Your task to perform on an android device: turn off notifications in google photos Image 0: 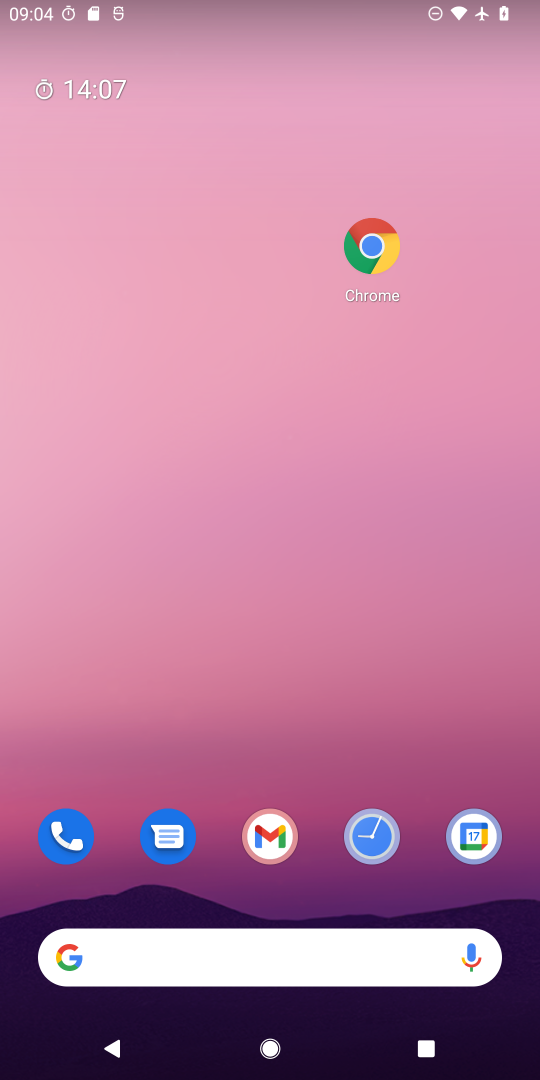
Step 0: drag from (194, 755) to (209, 198)
Your task to perform on an android device: turn off notifications in google photos Image 1: 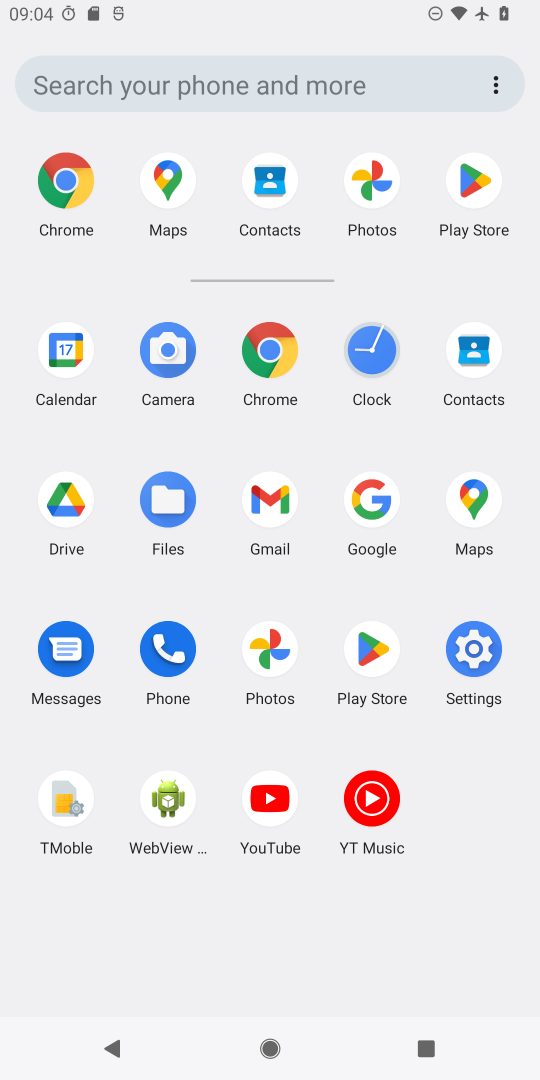
Step 1: click (367, 172)
Your task to perform on an android device: turn off notifications in google photos Image 2: 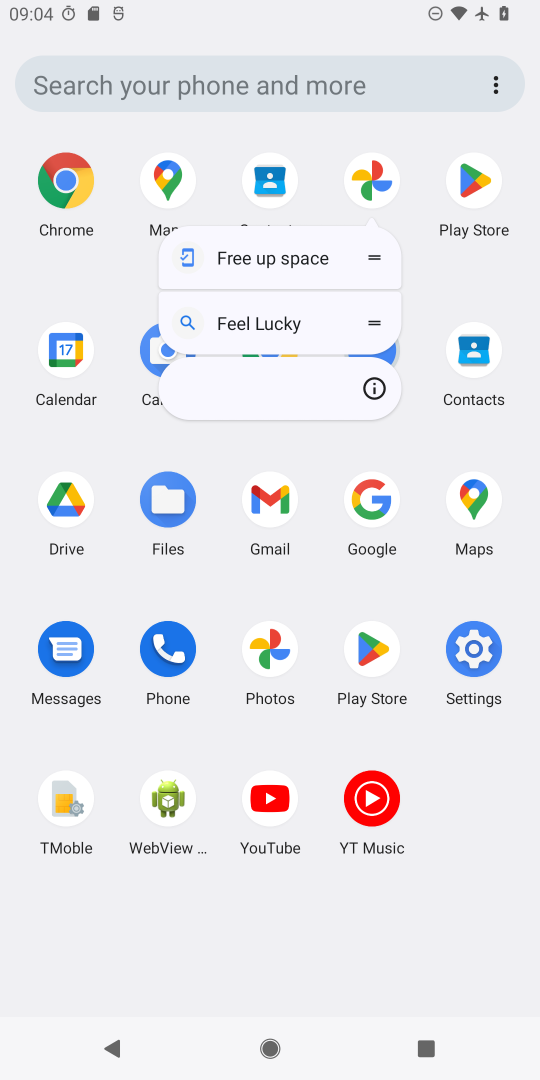
Step 2: click (367, 172)
Your task to perform on an android device: turn off notifications in google photos Image 3: 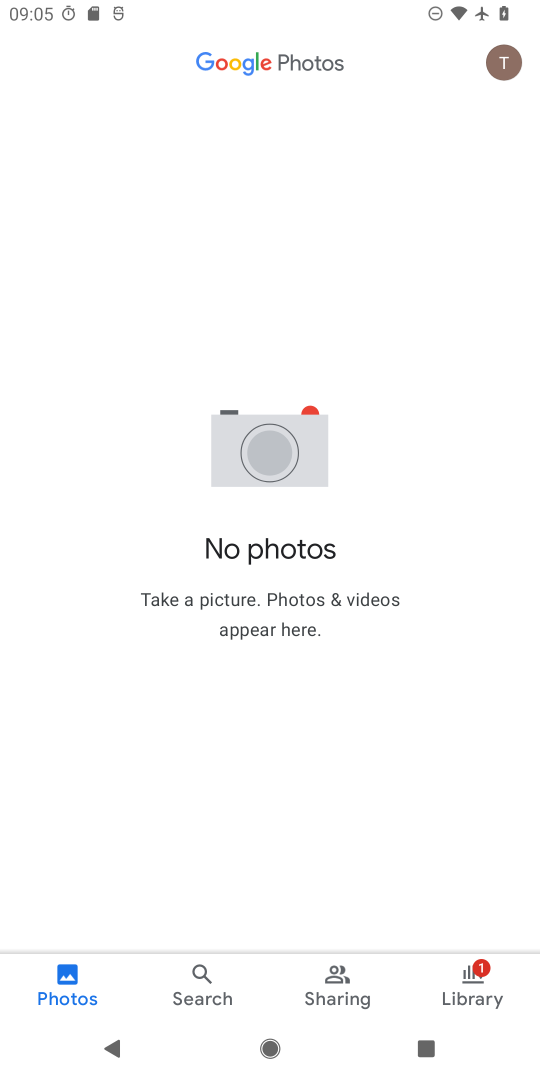
Step 3: click (515, 54)
Your task to perform on an android device: turn off notifications in google photos Image 4: 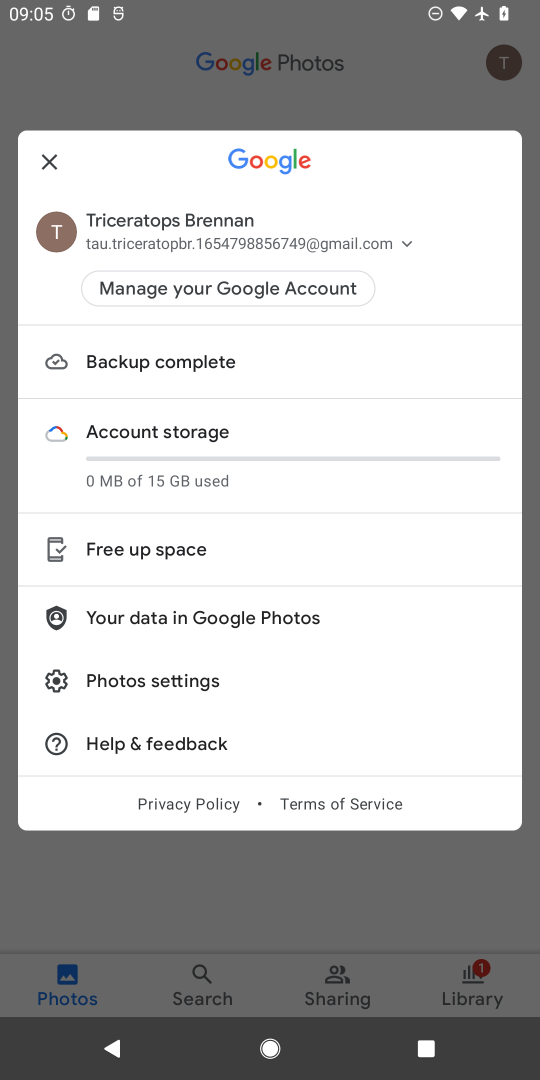
Step 4: click (172, 690)
Your task to perform on an android device: turn off notifications in google photos Image 5: 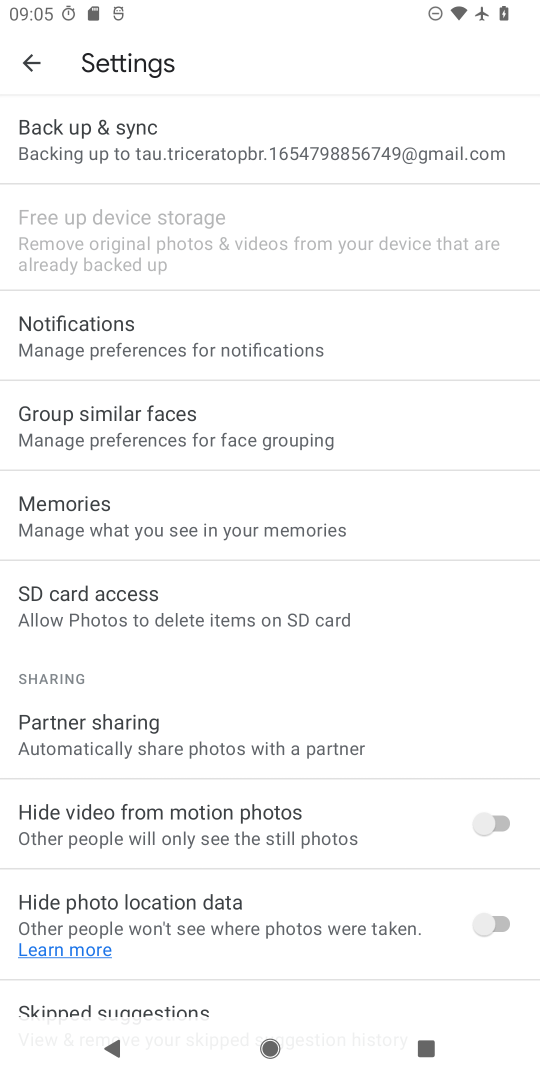
Step 5: drag from (111, 219) to (134, 413)
Your task to perform on an android device: turn off notifications in google photos Image 6: 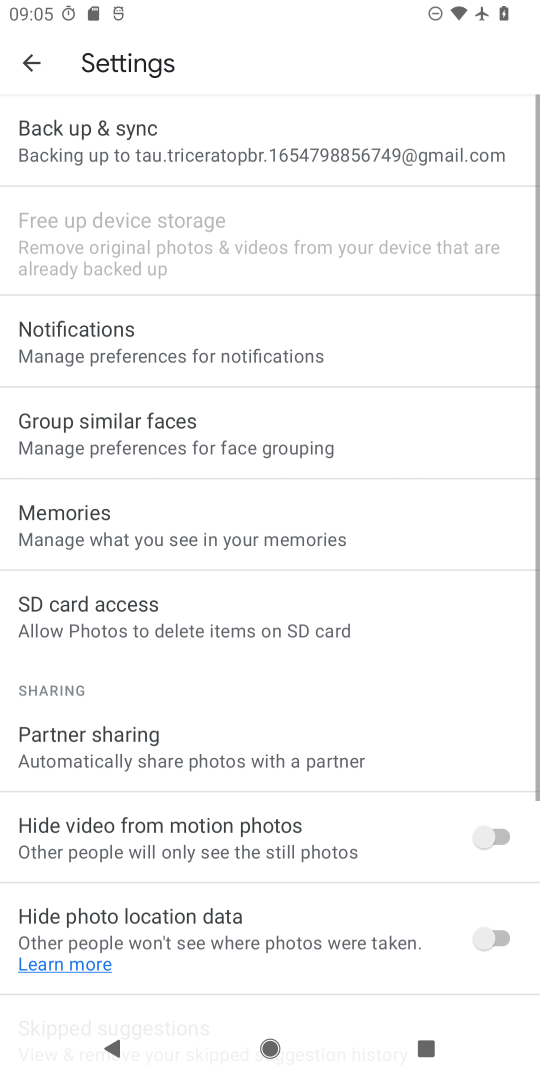
Step 6: click (128, 348)
Your task to perform on an android device: turn off notifications in google photos Image 7: 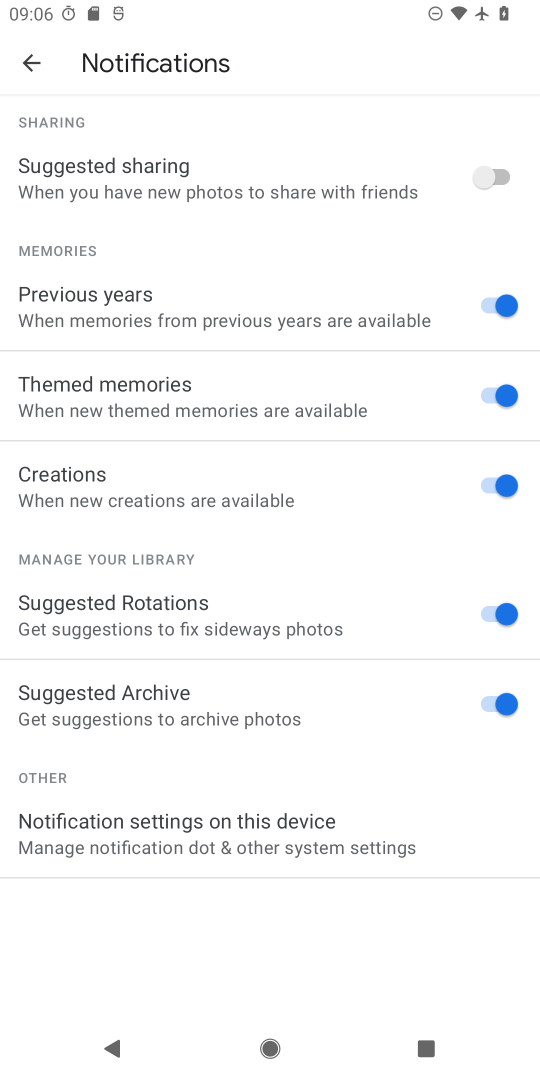
Step 7: drag from (362, 196) to (340, 882)
Your task to perform on an android device: turn off notifications in google photos Image 8: 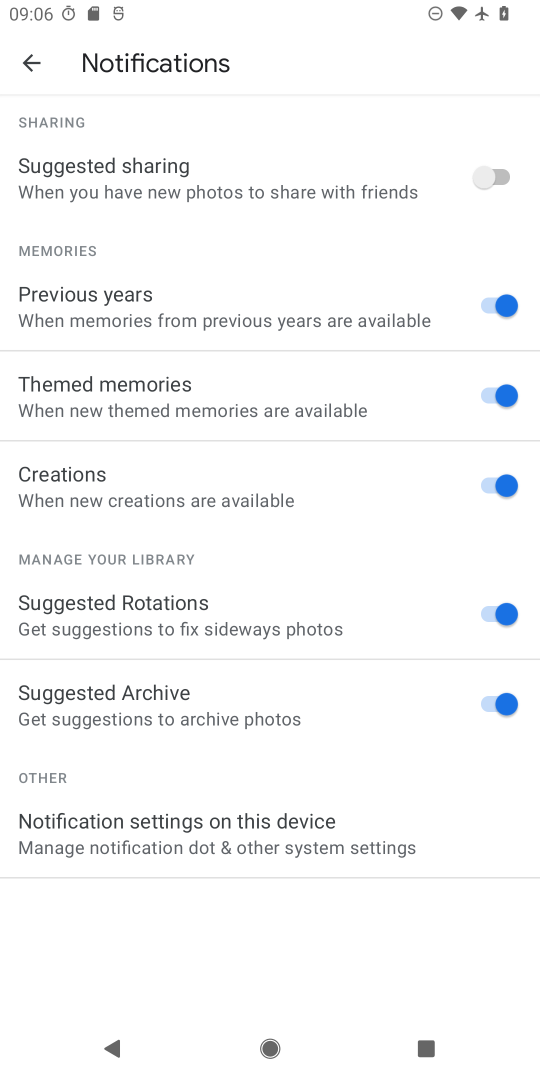
Step 8: click (32, 57)
Your task to perform on an android device: turn off notifications in google photos Image 9: 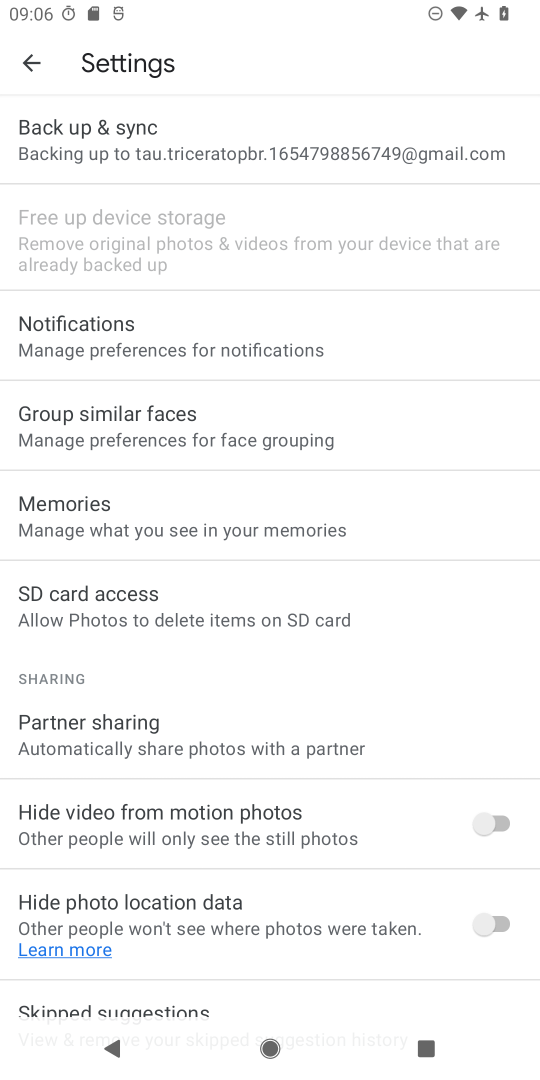
Step 9: click (249, 342)
Your task to perform on an android device: turn off notifications in google photos Image 10: 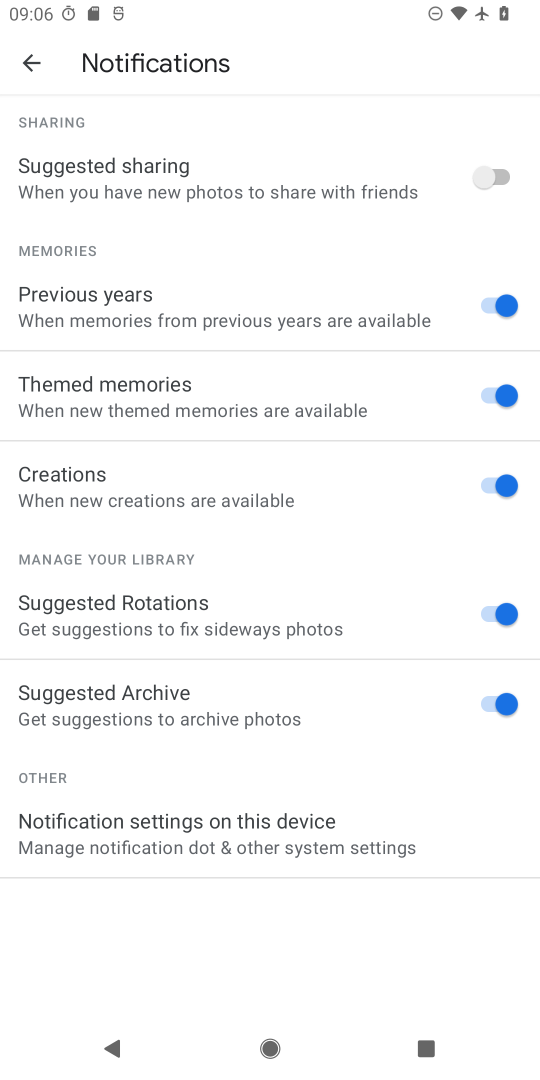
Step 10: click (341, 851)
Your task to perform on an android device: turn off notifications in google photos Image 11: 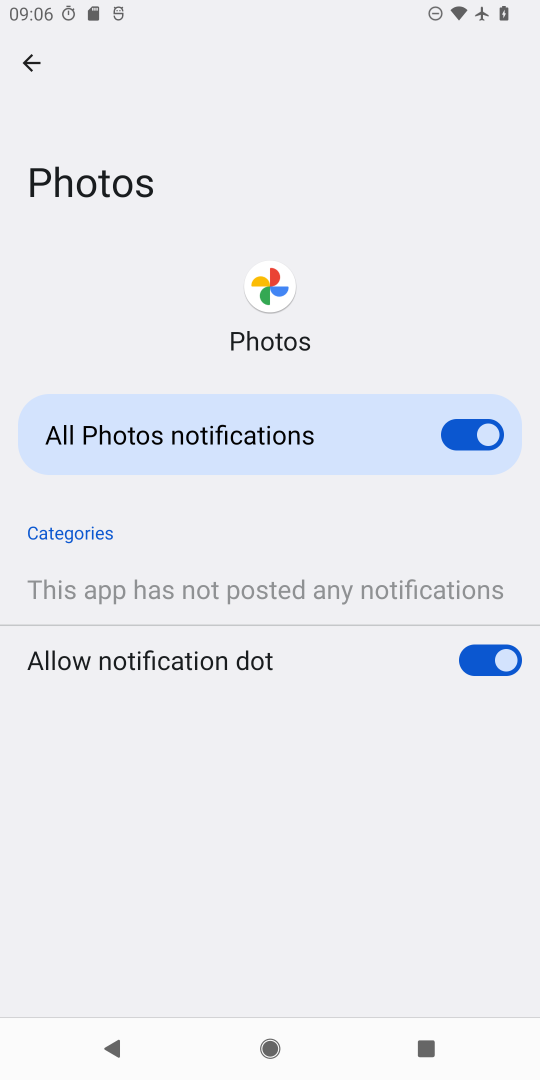
Step 11: click (458, 444)
Your task to perform on an android device: turn off notifications in google photos Image 12: 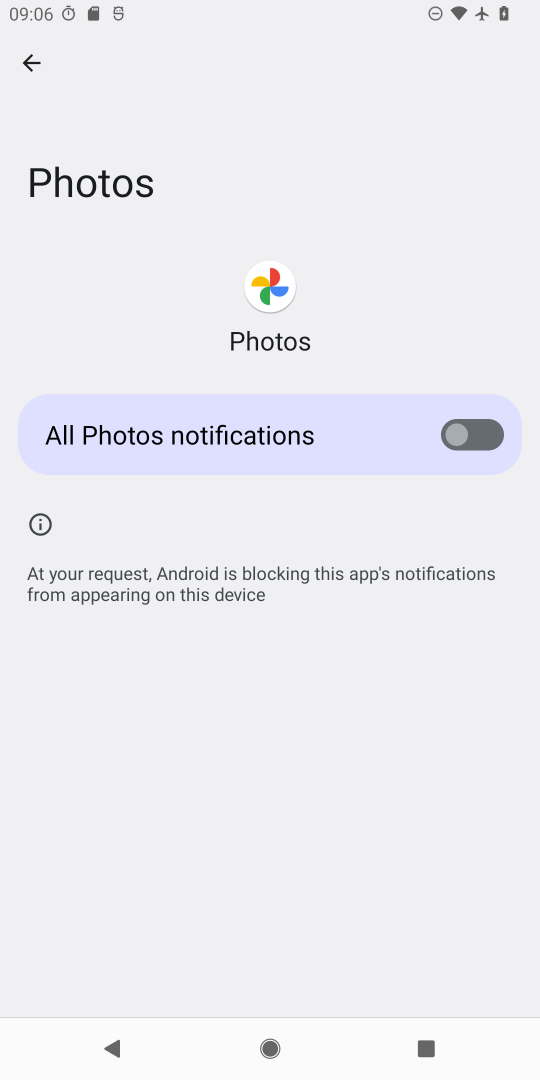
Step 12: task complete